Your task to perform on an android device: allow notifications from all sites in the chrome app Image 0: 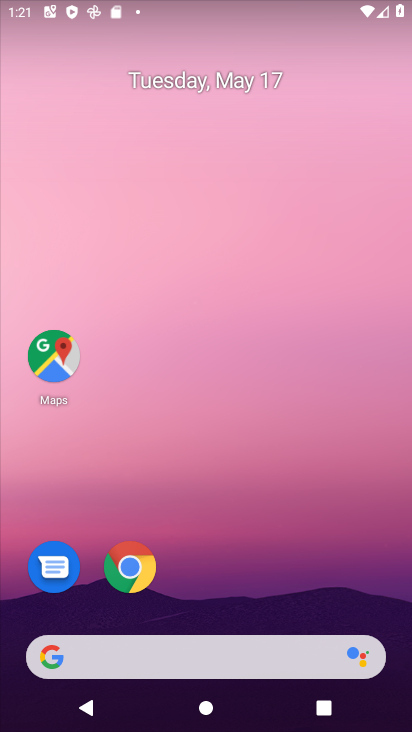
Step 0: click (132, 570)
Your task to perform on an android device: allow notifications from all sites in the chrome app Image 1: 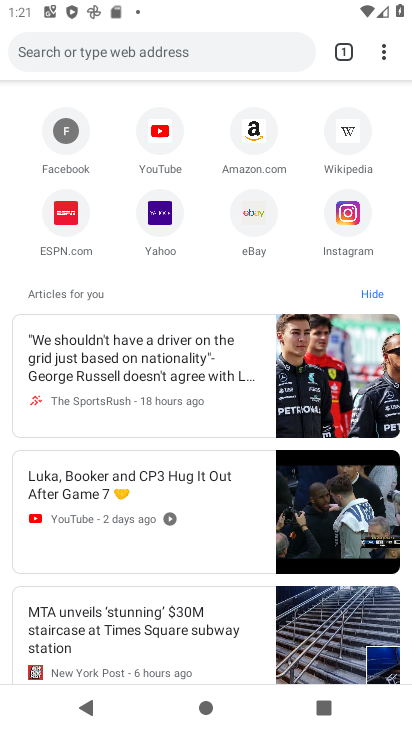
Step 1: click (385, 53)
Your task to perform on an android device: allow notifications from all sites in the chrome app Image 2: 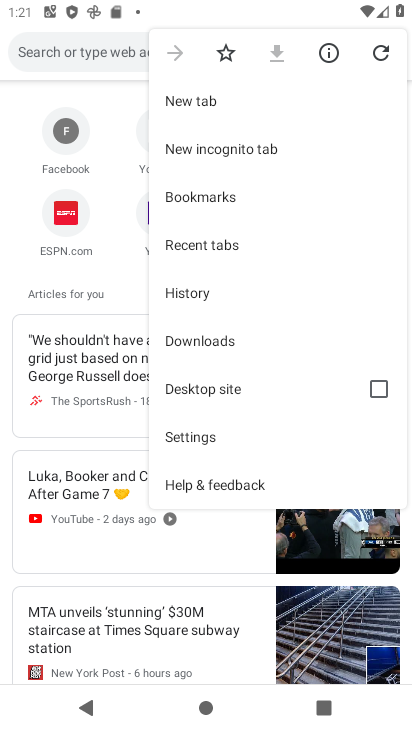
Step 2: click (205, 427)
Your task to perform on an android device: allow notifications from all sites in the chrome app Image 3: 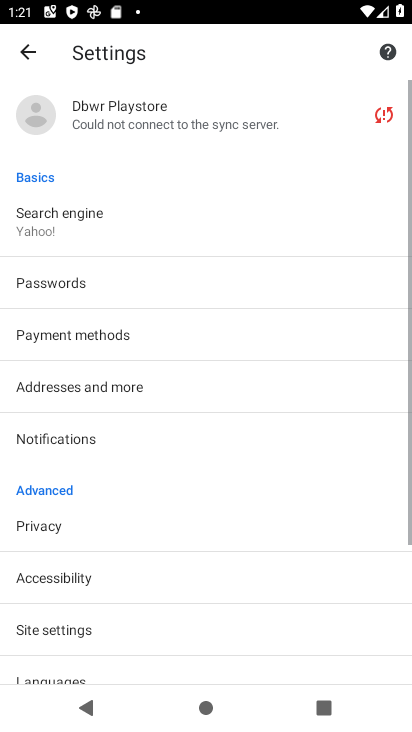
Step 3: drag from (216, 575) to (227, 157)
Your task to perform on an android device: allow notifications from all sites in the chrome app Image 4: 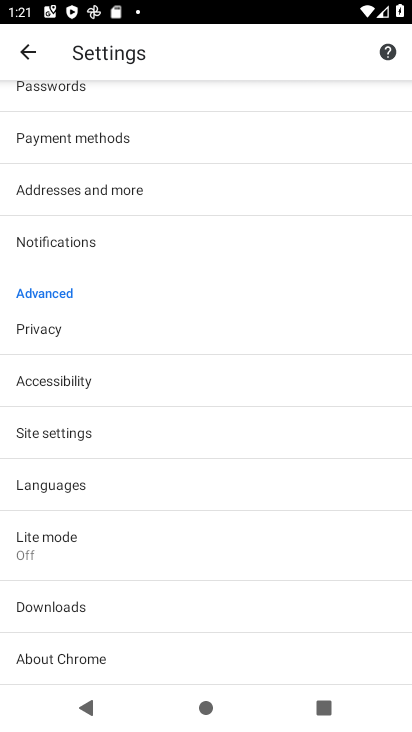
Step 4: click (71, 431)
Your task to perform on an android device: allow notifications from all sites in the chrome app Image 5: 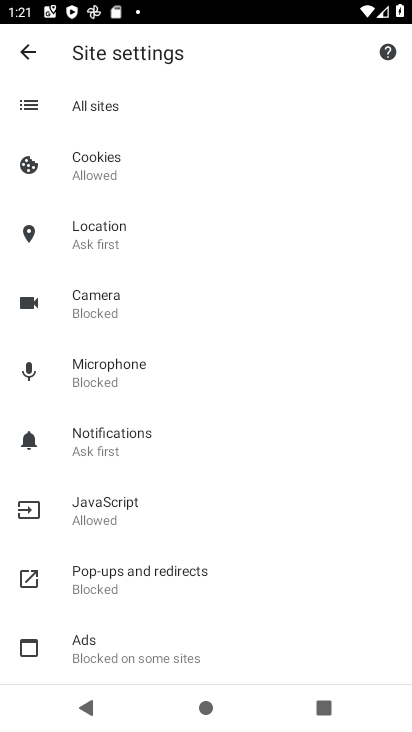
Step 5: click (118, 439)
Your task to perform on an android device: allow notifications from all sites in the chrome app Image 6: 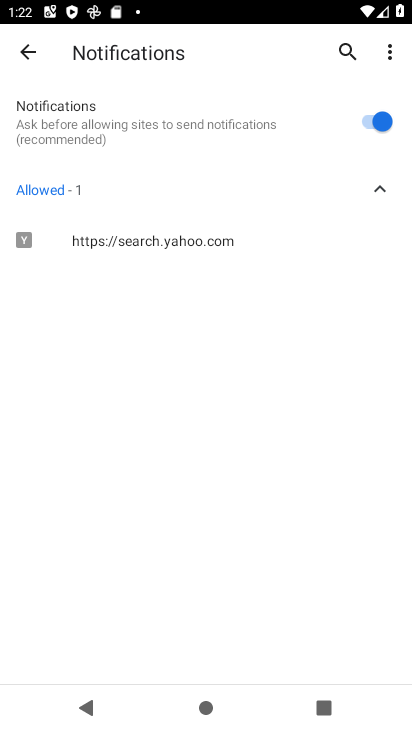
Step 6: task complete